Your task to perform on an android device: Search for hotels in San Francisco Image 0: 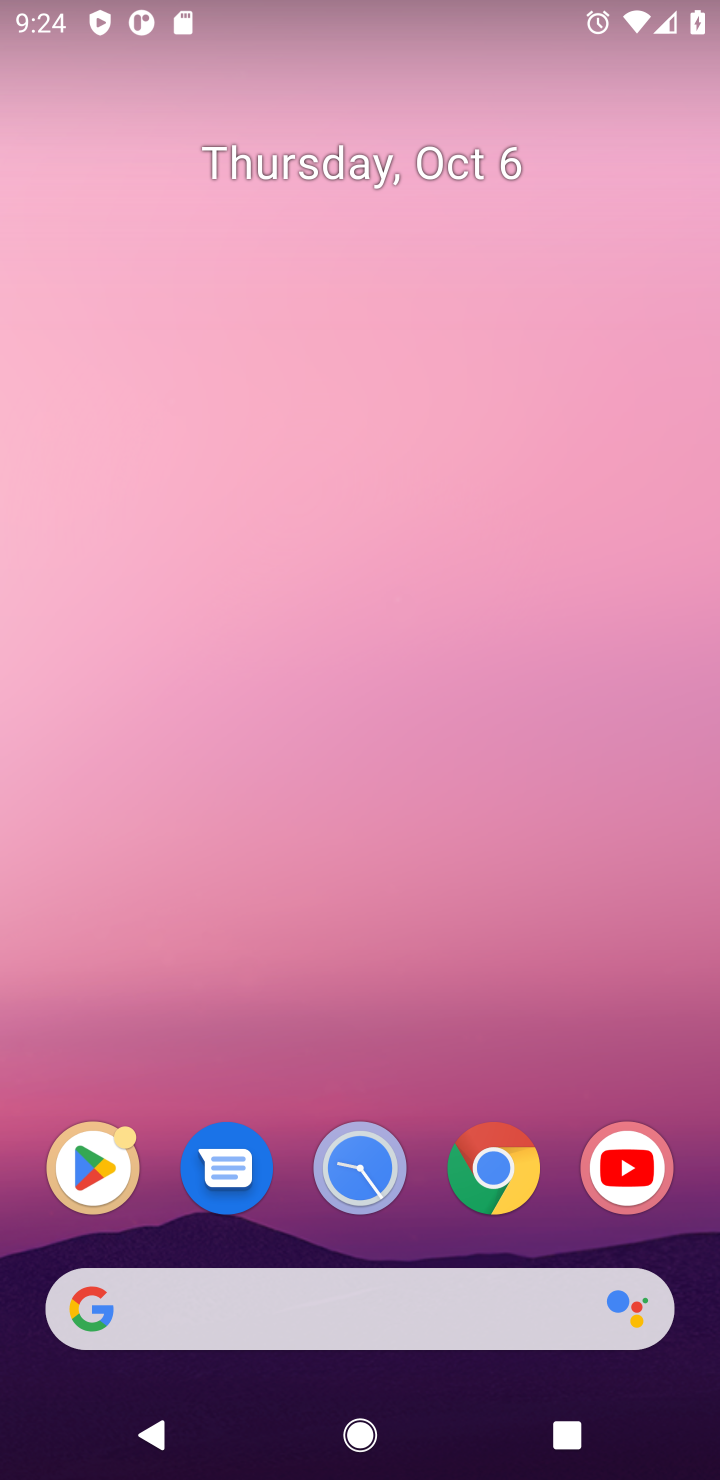
Step 0: click (319, 1292)
Your task to perform on an android device: Search for hotels in San Francisco Image 1: 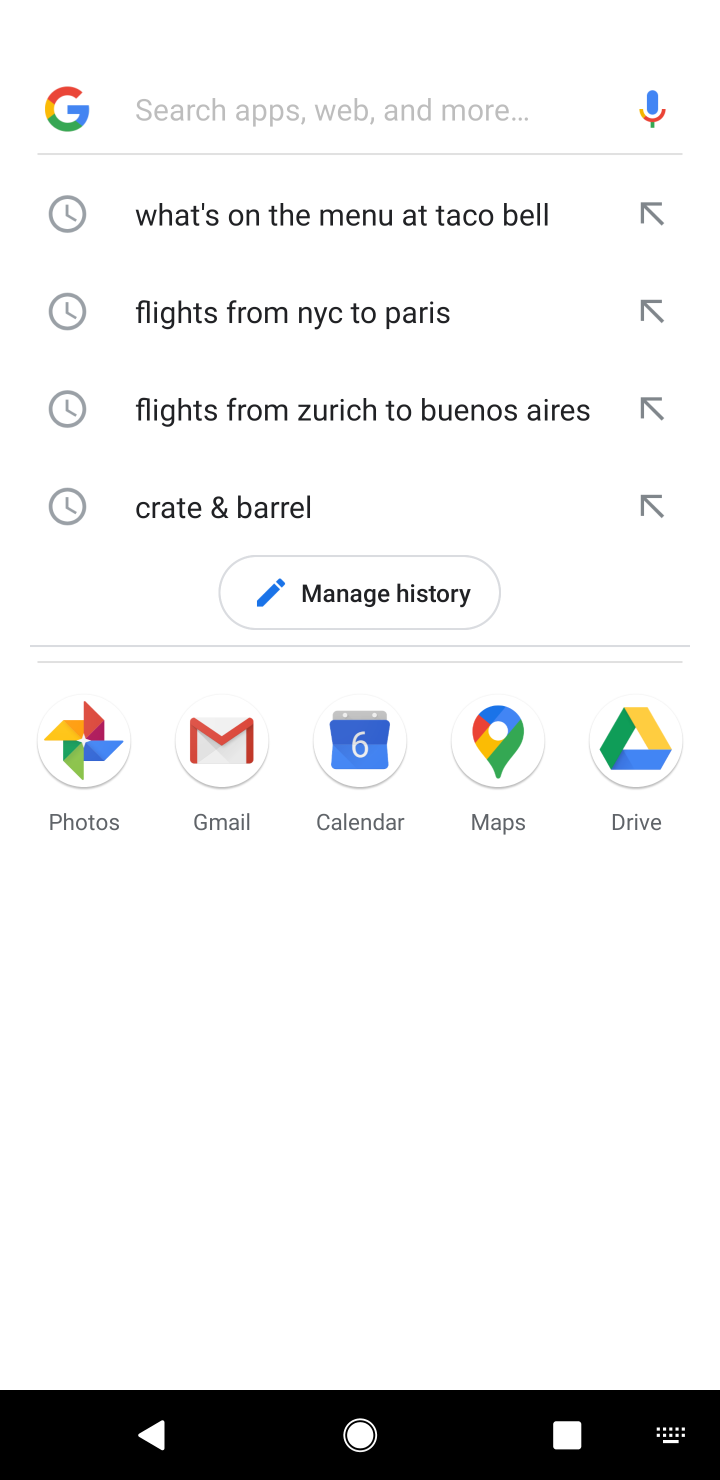
Step 1: type "Search for hotels in San Francisco"
Your task to perform on an android device: Search for hotels in San Francisco Image 2: 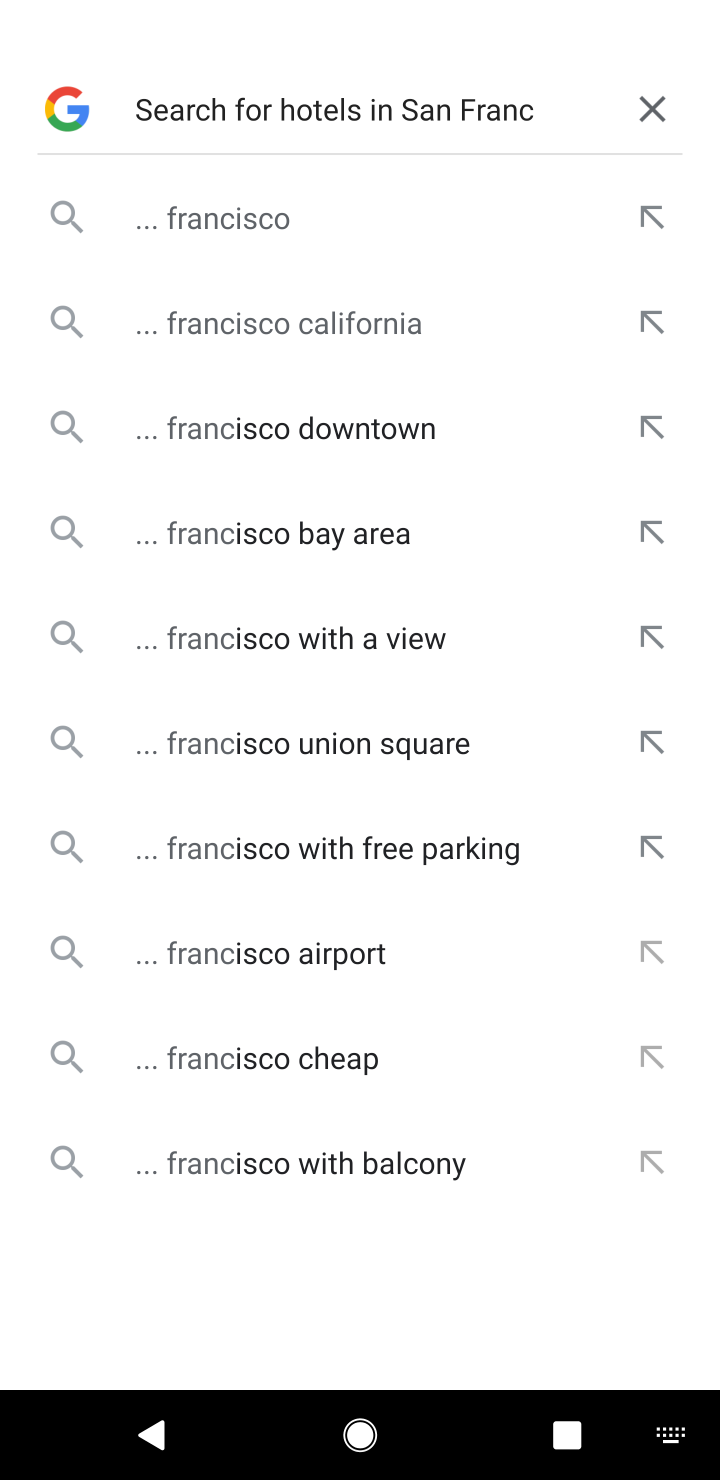
Step 2: click (271, 213)
Your task to perform on an android device: Search for hotels in San Francisco Image 3: 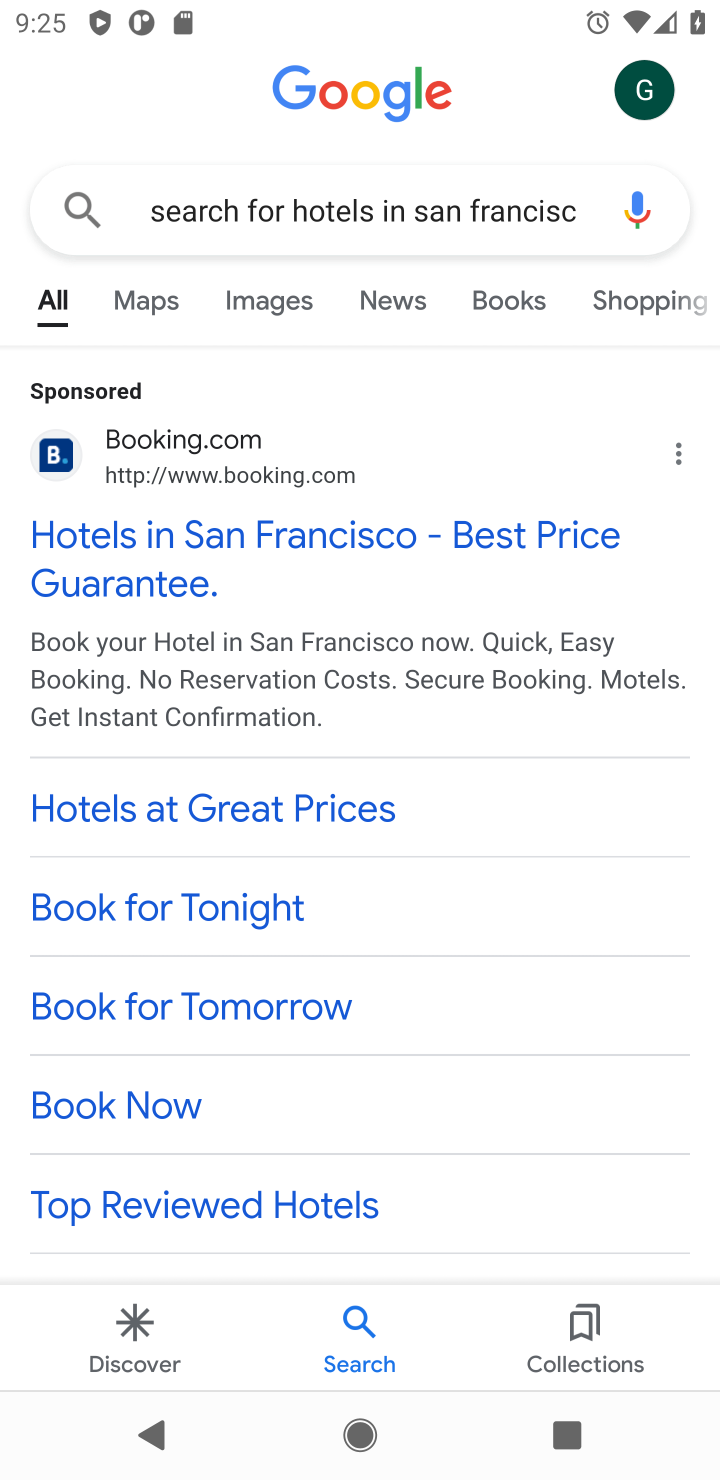
Step 3: click (305, 530)
Your task to perform on an android device: Search for hotels in San Francisco Image 4: 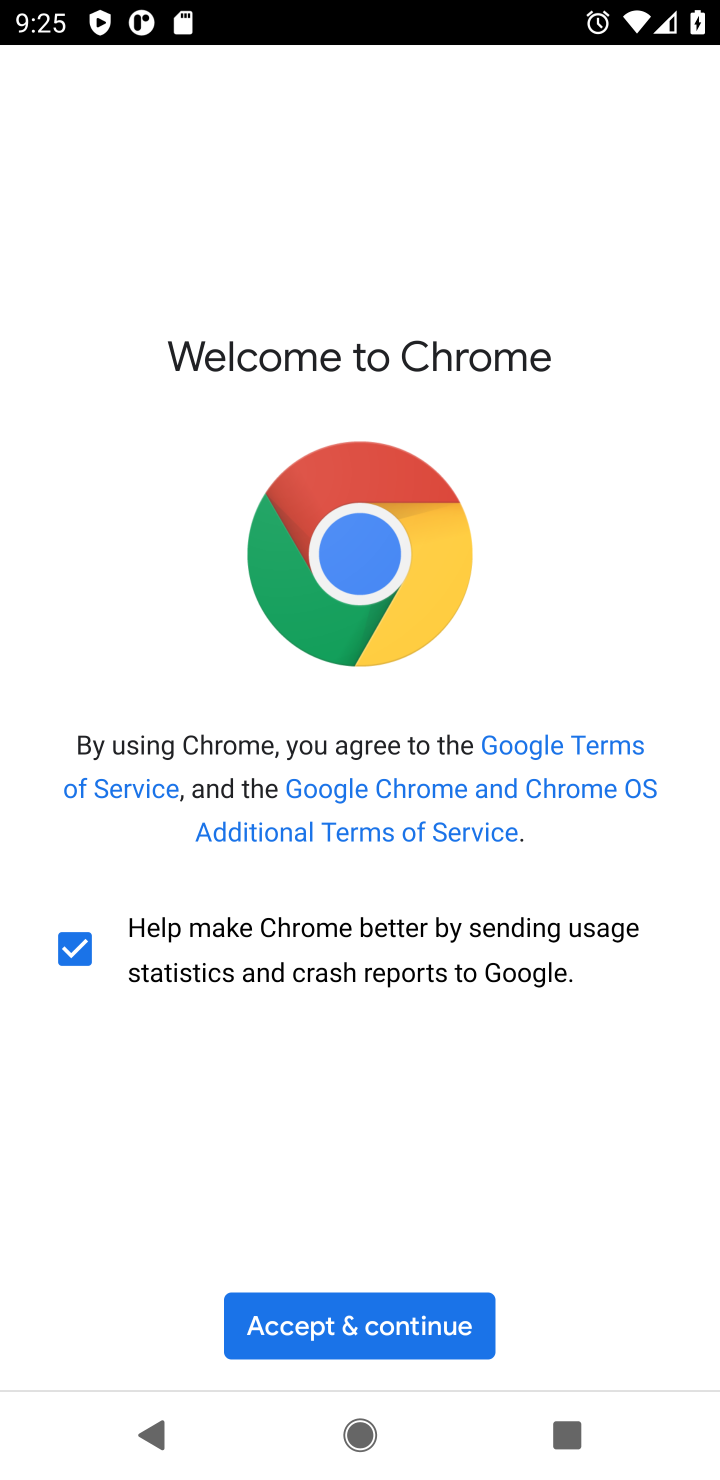
Step 4: click (384, 1317)
Your task to perform on an android device: Search for hotels in San Francisco Image 5: 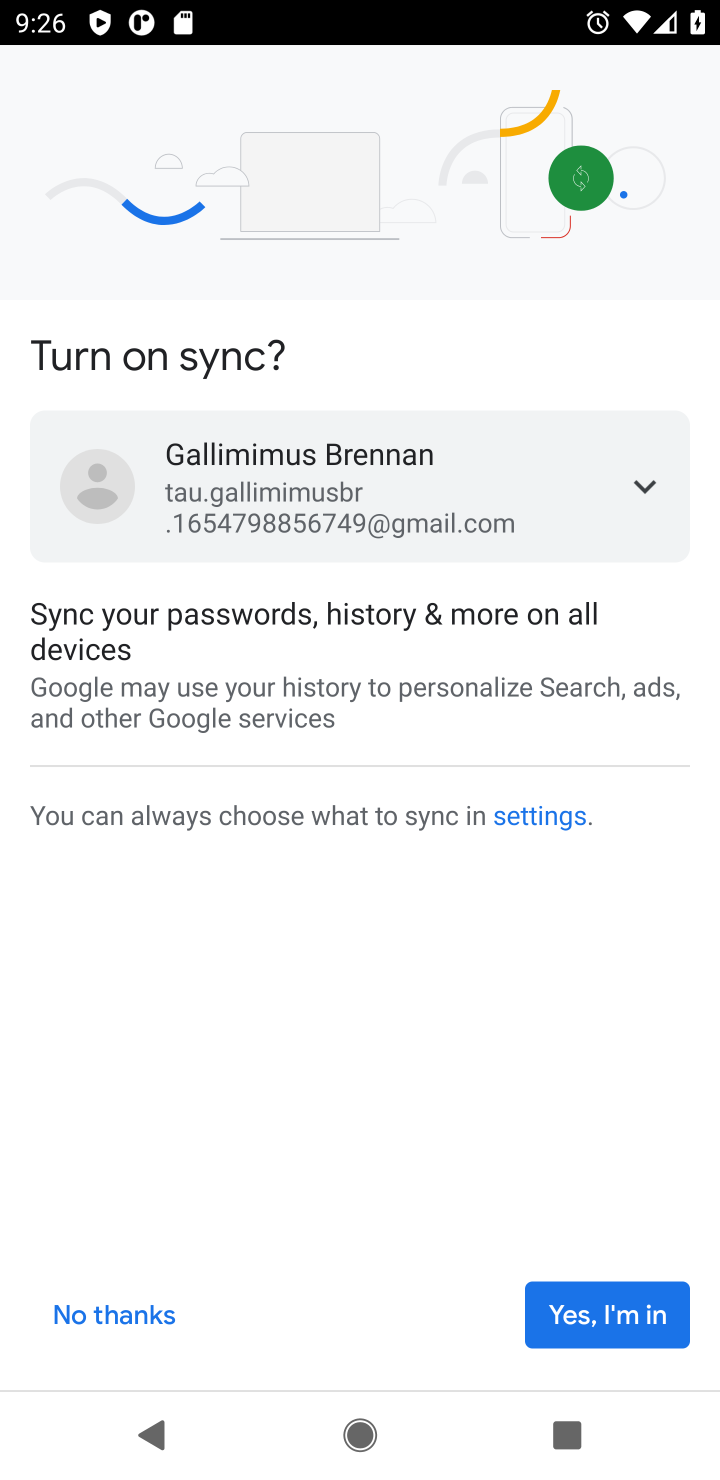
Step 5: click (592, 1326)
Your task to perform on an android device: Search for hotels in San Francisco Image 6: 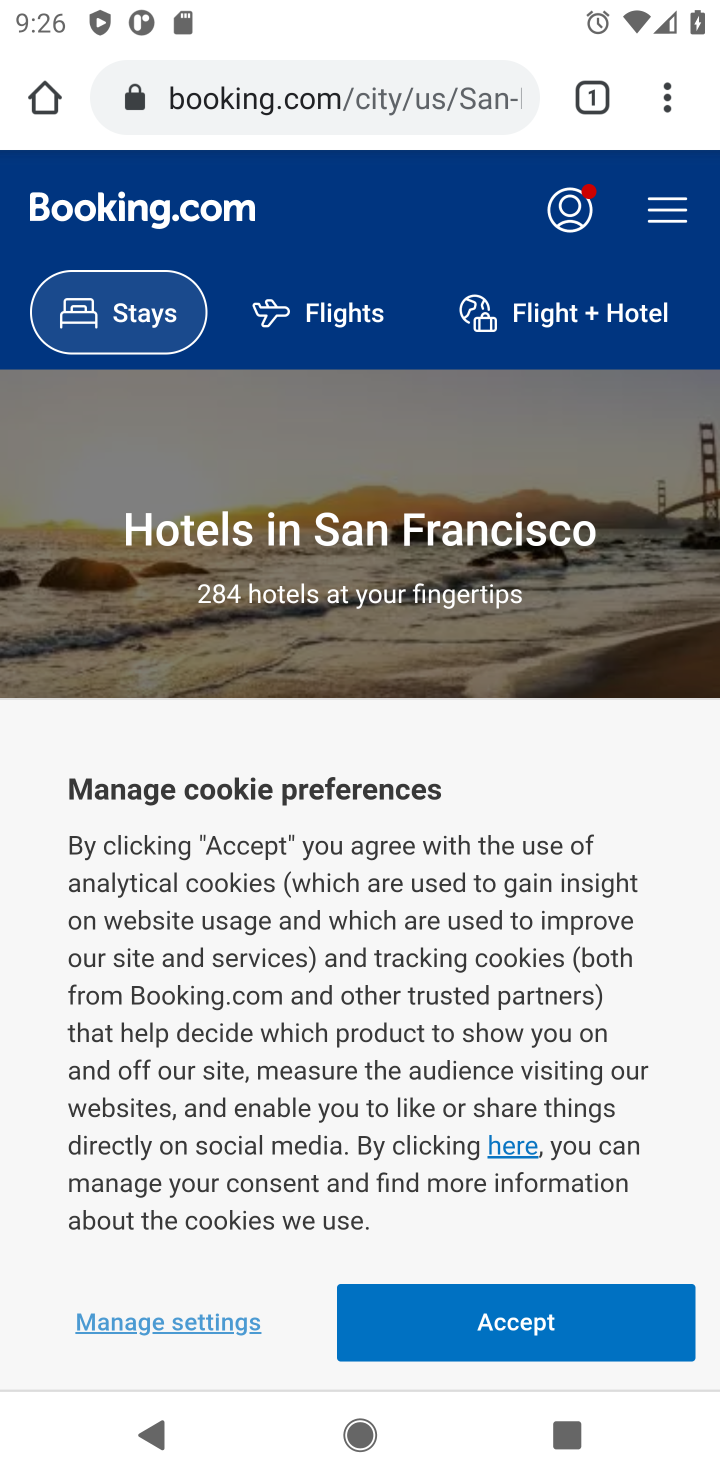
Step 6: click (436, 1336)
Your task to perform on an android device: Search for hotels in San Francisco Image 7: 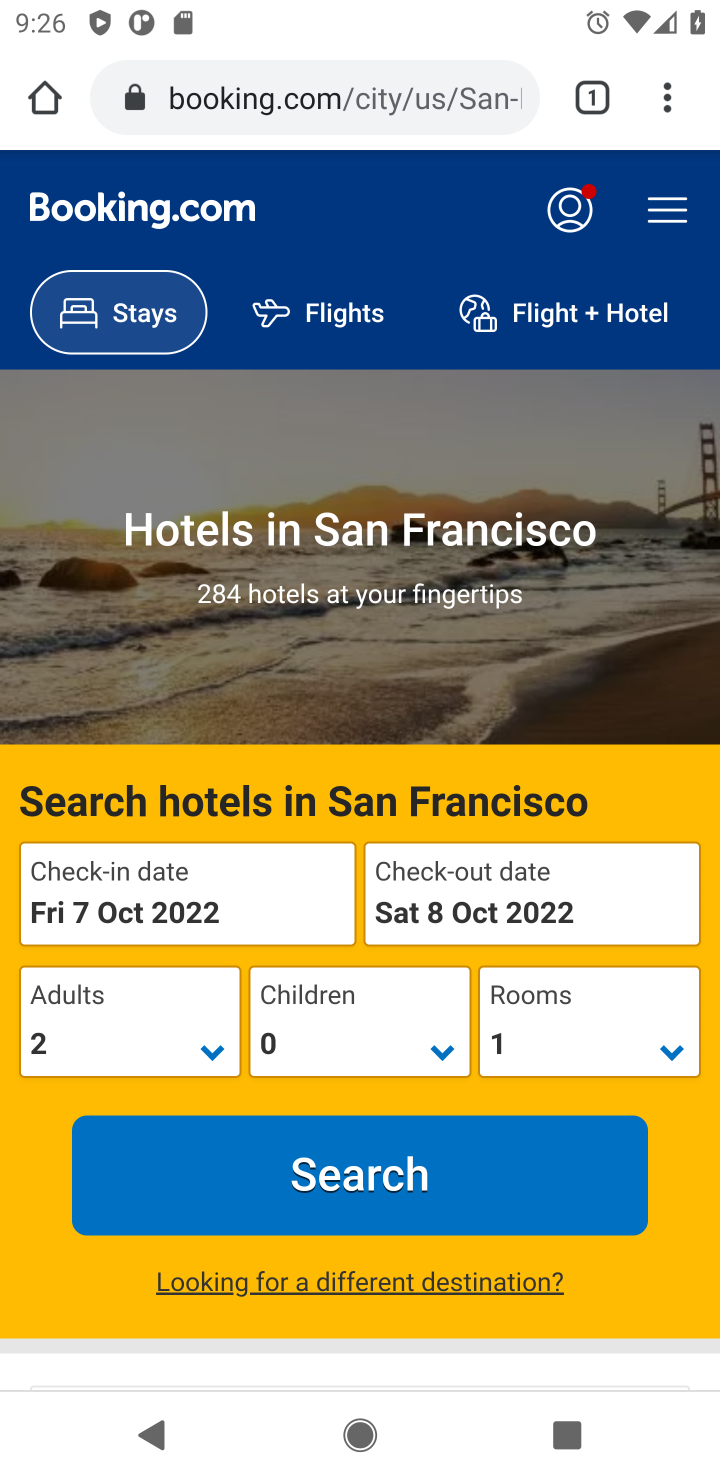
Step 7: drag from (642, 698) to (642, 481)
Your task to perform on an android device: Search for hotels in San Francisco Image 8: 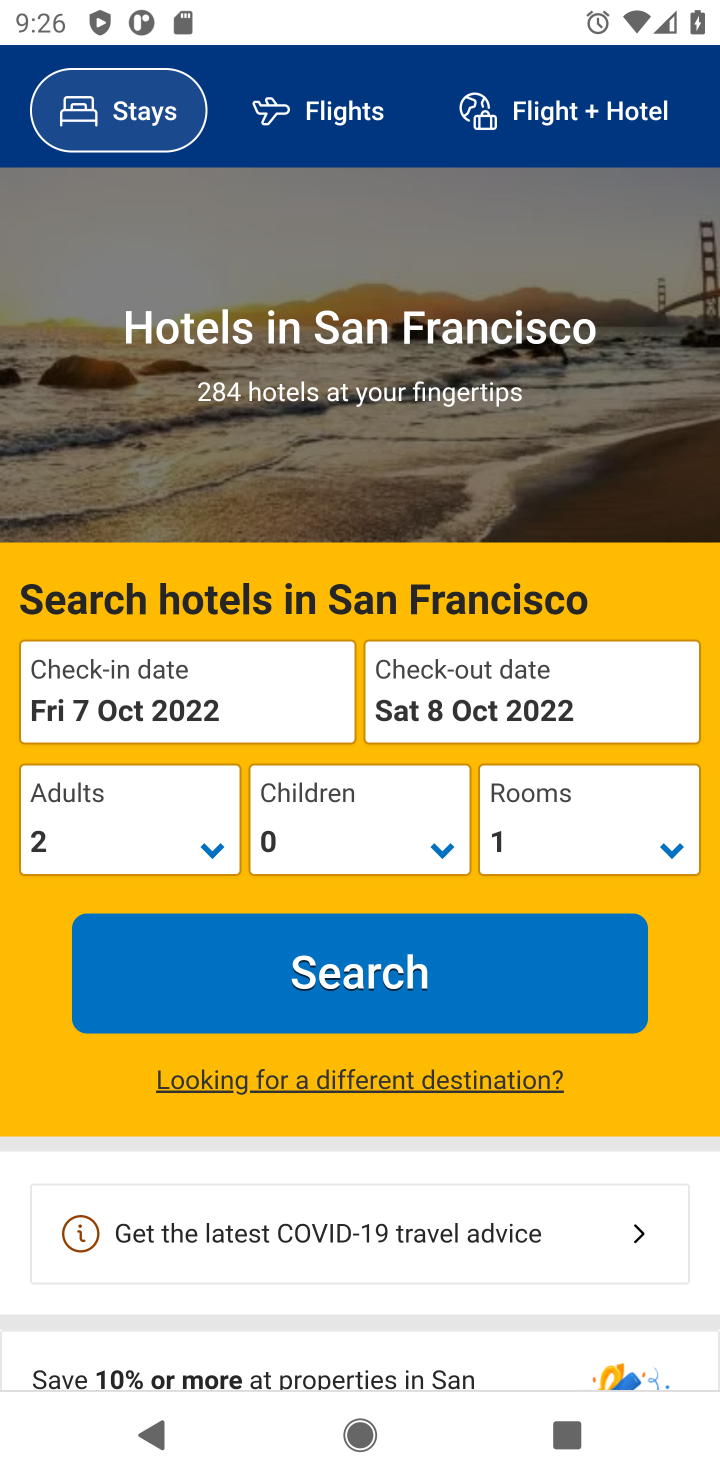
Step 8: click (338, 995)
Your task to perform on an android device: Search for hotels in San Francisco Image 9: 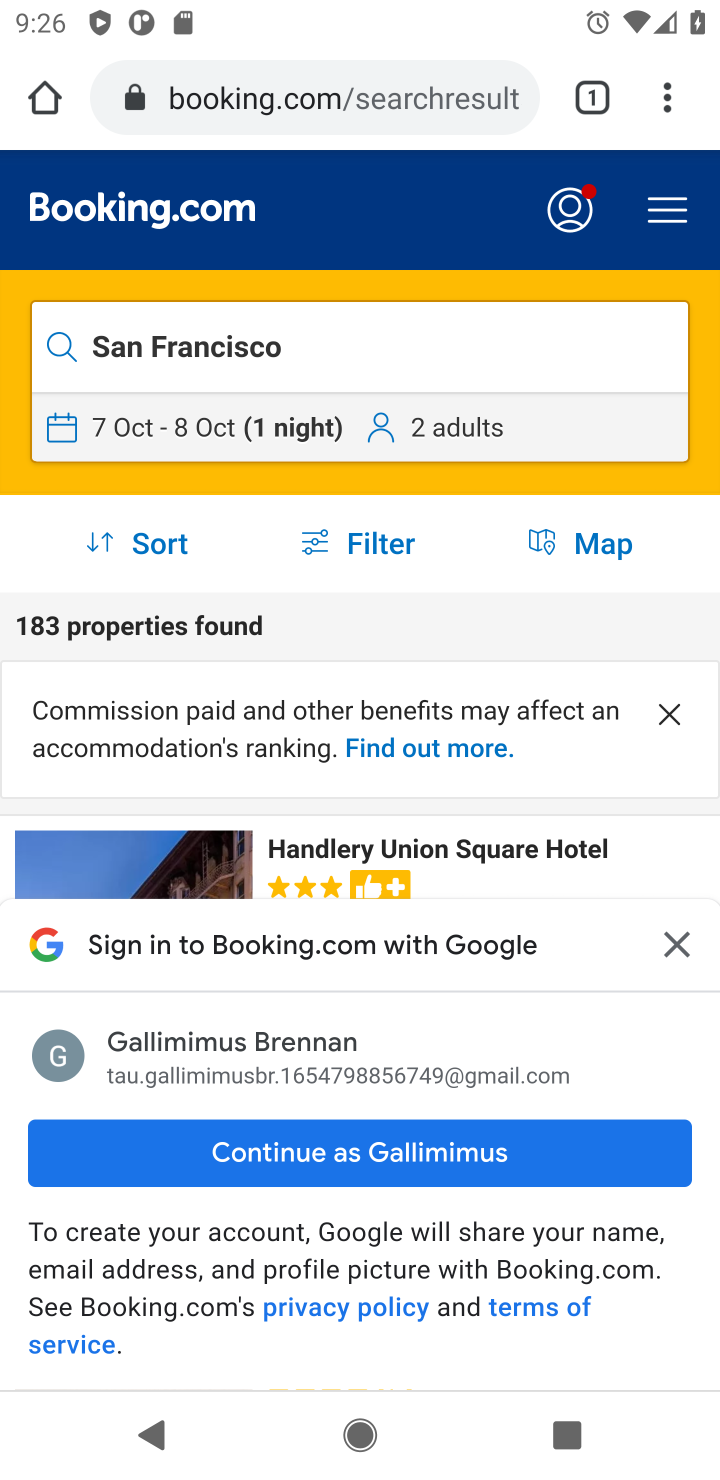
Step 9: task complete